Your task to perform on an android device: check battery use Image 0: 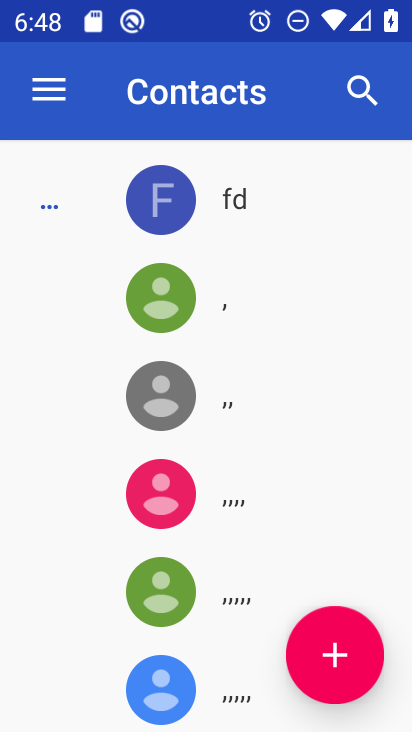
Step 0: press home button
Your task to perform on an android device: check battery use Image 1: 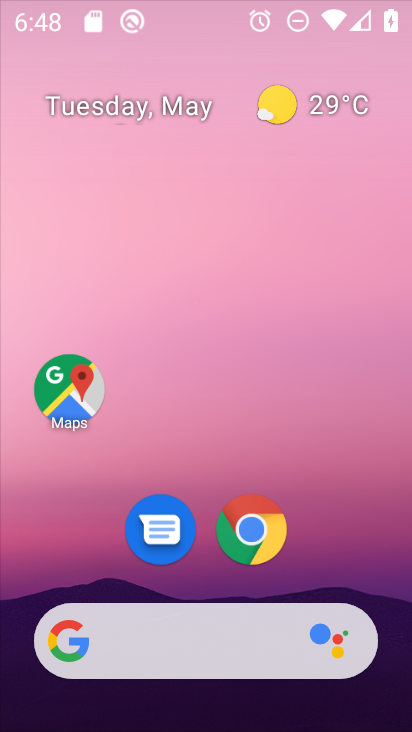
Step 1: drag from (383, 637) to (331, 247)
Your task to perform on an android device: check battery use Image 2: 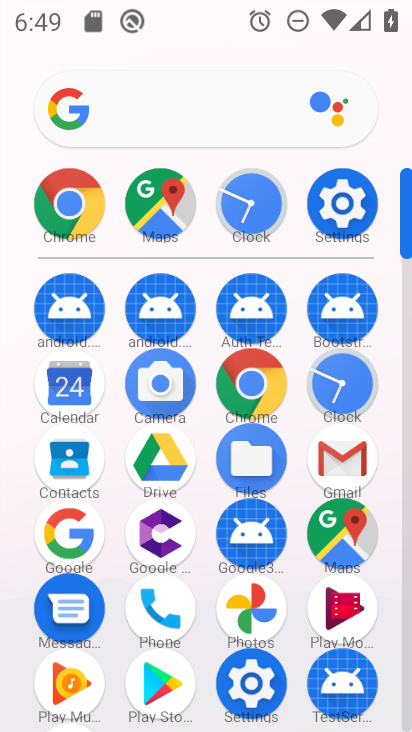
Step 2: click (266, 664)
Your task to perform on an android device: check battery use Image 3: 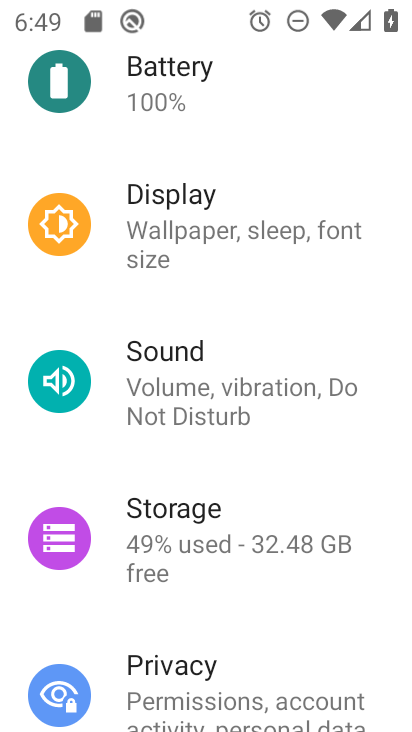
Step 3: drag from (174, 644) to (219, 392)
Your task to perform on an android device: check battery use Image 4: 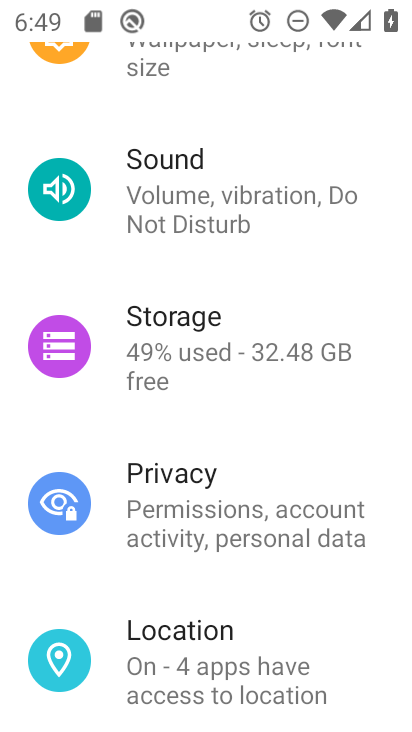
Step 4: drag from (222, 182) to (244, 712)
Your task to perform on an android device: check battery use Image 5: 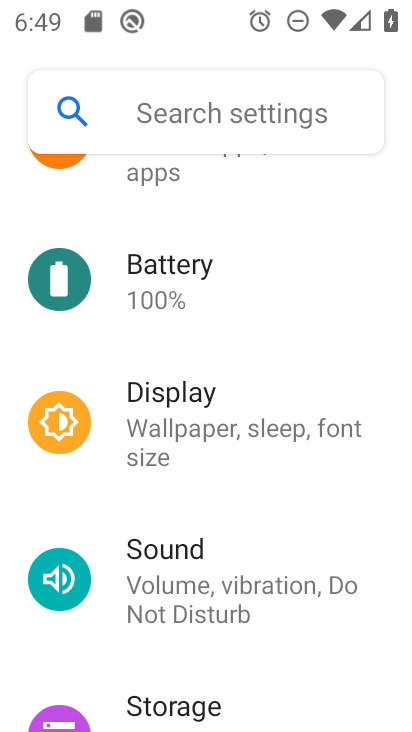
Step 5: click (228, 296)
Your task to perform on an android device: check battery use Image 6: 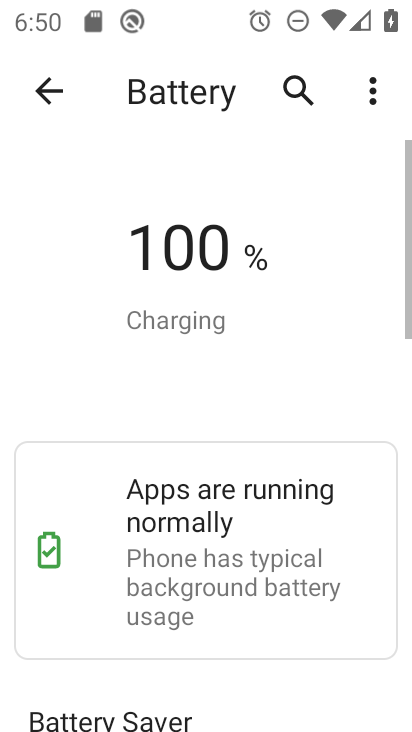
Step 6: click (385, 83)
Your task to perform on an android device: check battery use Image 7: 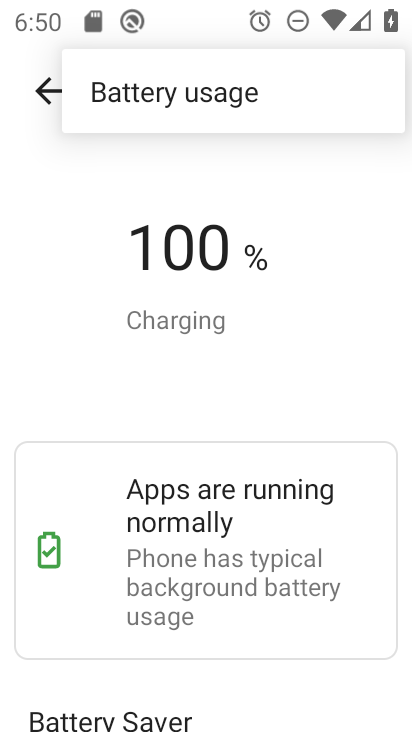
Step 7: click (240, 81)
Your task to perform on an android device: check battery use Image 8: 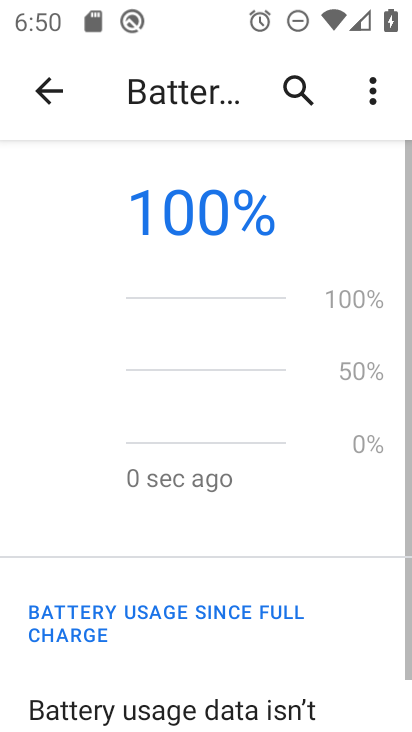
Step 8: task complete